Your task to perform on an android device: turn on the 24-hour format for clock Image 0: 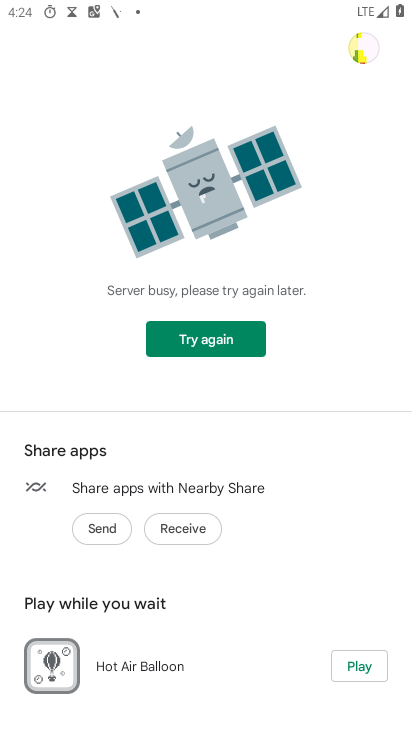
Step 0: press home button
Your task to perform on an android device: turn on the 24-hour format for clock Image 1: 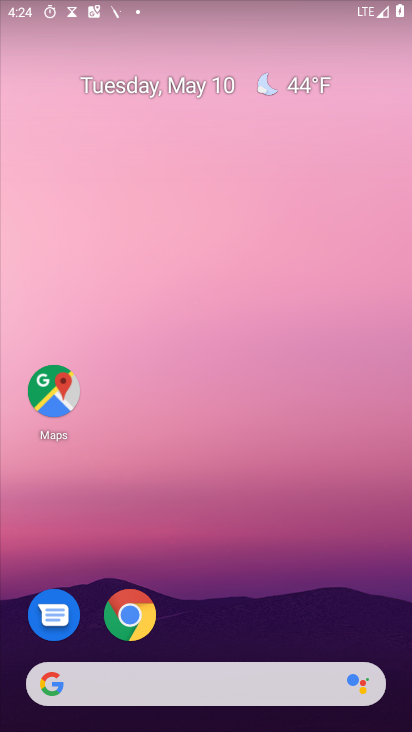
Step 1: drag from (236, 711) to (172, 0)
Your task to perform on an android device: turn on the 24-hour format for clock Image 2: 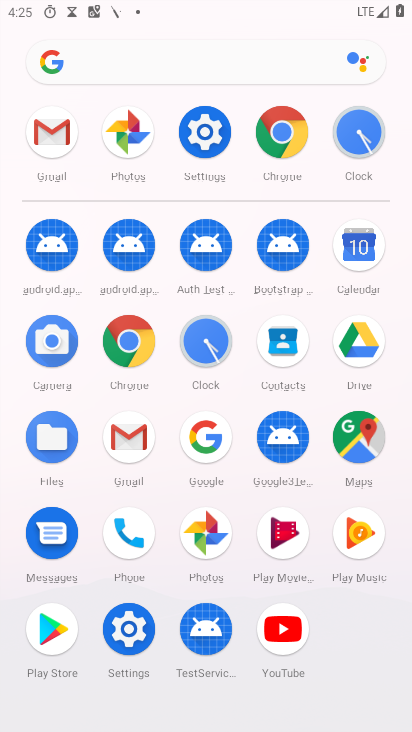
Step 2: click (221, 352)
Your task to perform on an android device: turn on the 24-hour format for clock Image 3: 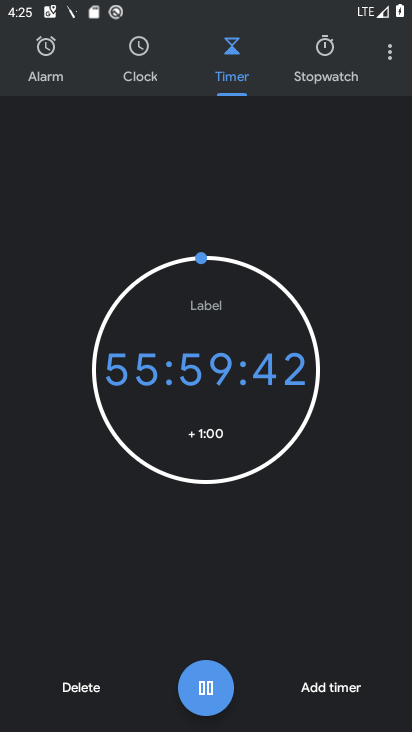
Step 3: click (392, 49)
Your task to perform on an android device: turn on the 24-hour format for clock Image 4: 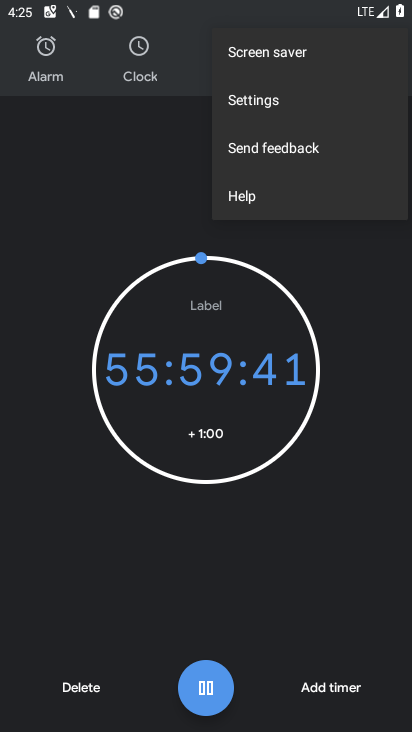
Step 4: click (295, 113)
Your task to perform on an android device: turn on the 24-hour format for clock Image 5: 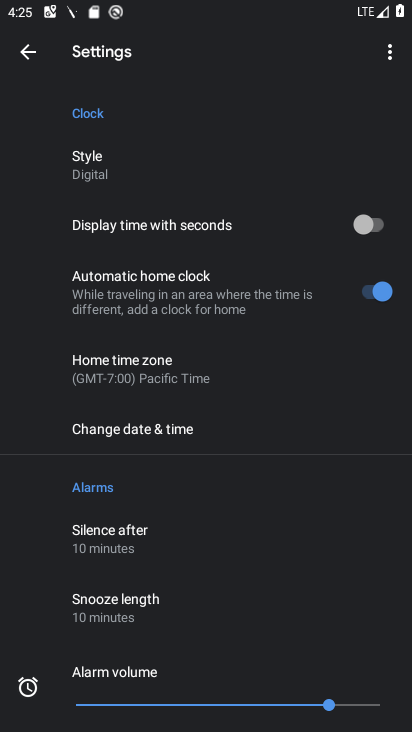
Step 5: click (171, 428)
Your task to perform on an android device: turn on the 24-hour format for clock Image 6: 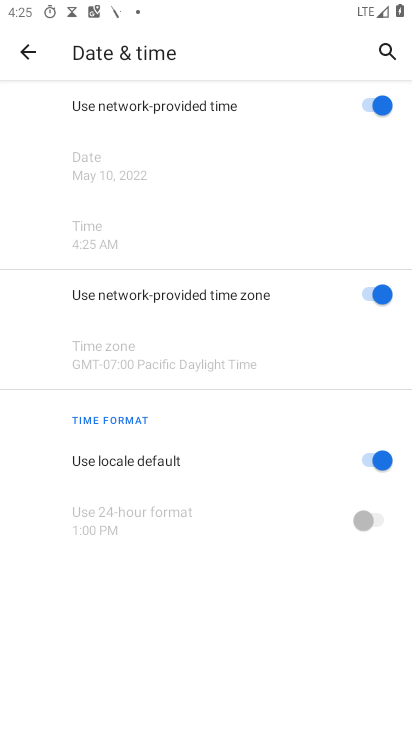
Step 6: click (367, 460)
Your task to perform on an android device: turn on the 24-hour format for clock Image 7: 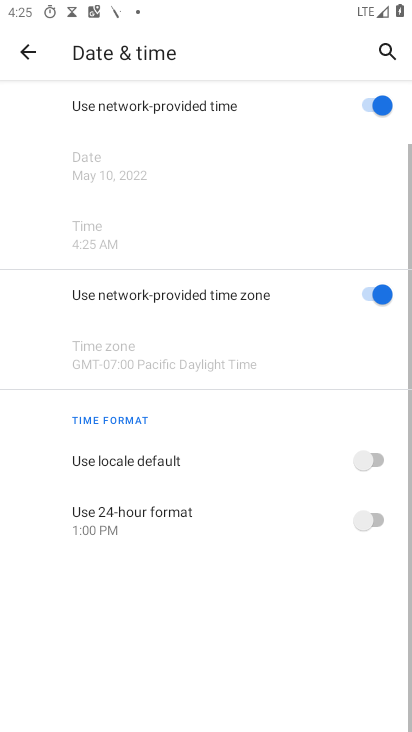
Step 7: click (380, 519)
Your task to perform on an android device: turn on the 24-hour format for clock Image 8: 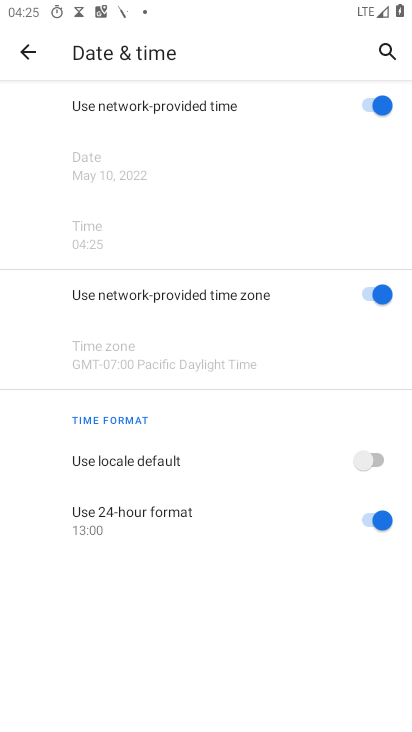
Step 8: task complete